Your task to perform on an android device: Open sound settings Image 0: 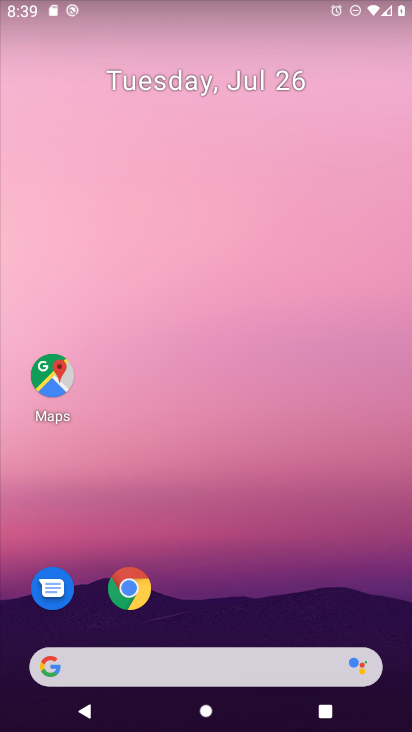
Step 0: drag from (236, 651) to (275, 97)
Your task to perform on an android device: Open sound settings Image 1: 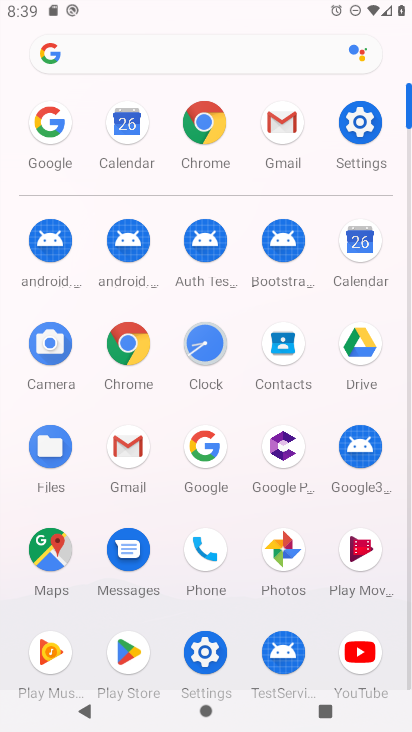
Step 1: click (370, 162)
Your task to perform on an android device: Open sound settings Image 2: 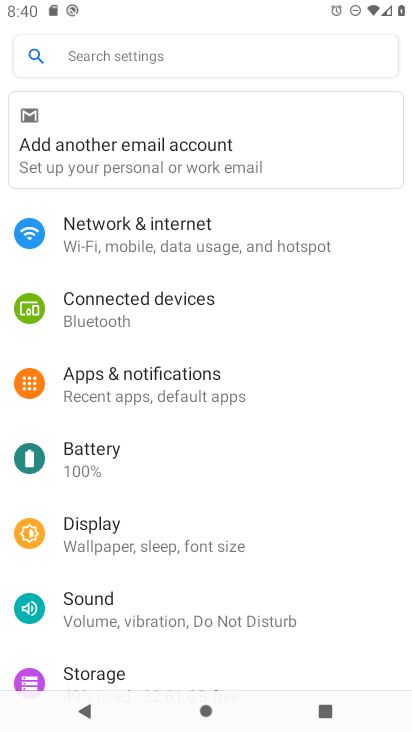
Step 2: click (131, 615)
Your task to perform on an android device: Open sound settings Image 3: 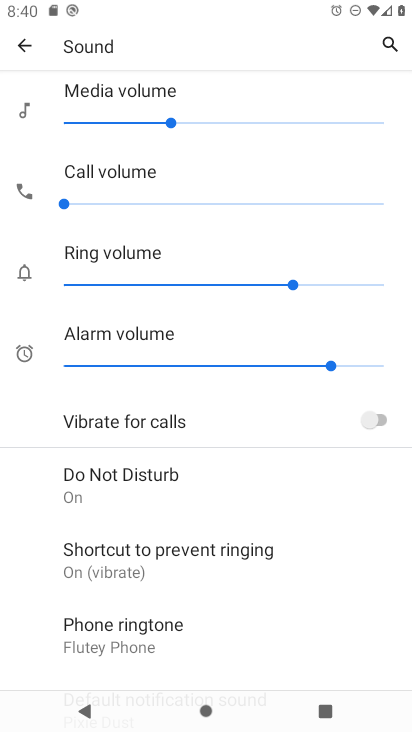
Step 3: task complete